Your task to perform on an android device: change the clock style Image 0: 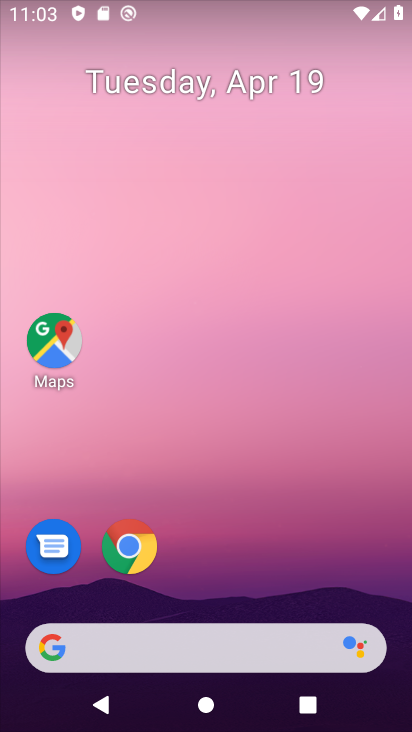
Step 0: drag from (232, 603) to (295, 36)
Your task to perform on an android device: change the clock style Image 1: 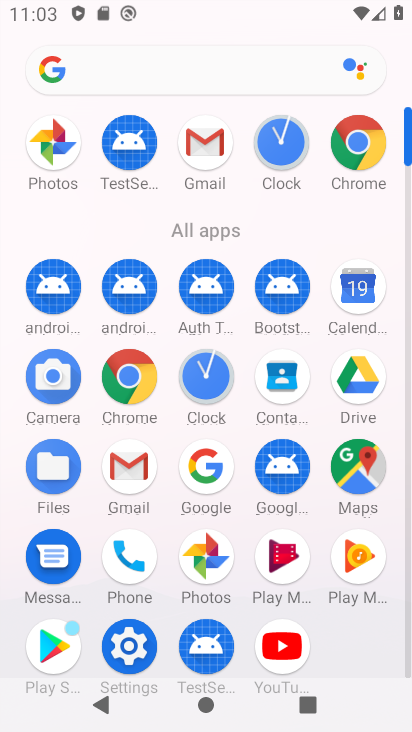
Step 1: click (201, 381)
Your task to perform on an android device: change the clock style Image 2: 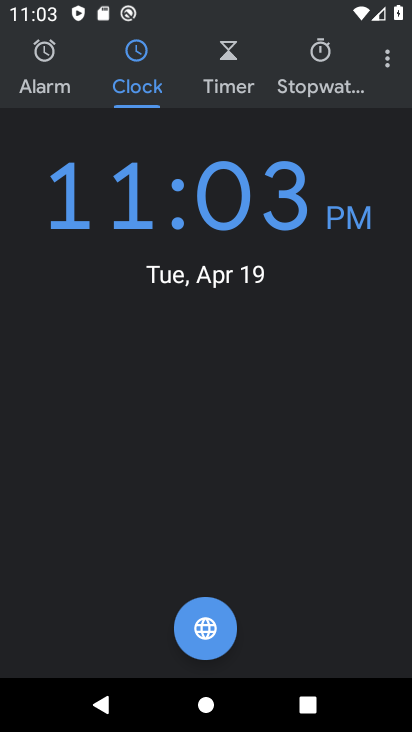
Step 2: click (380, 71)
Your task to perform on an android device: change the clock style Image 3: 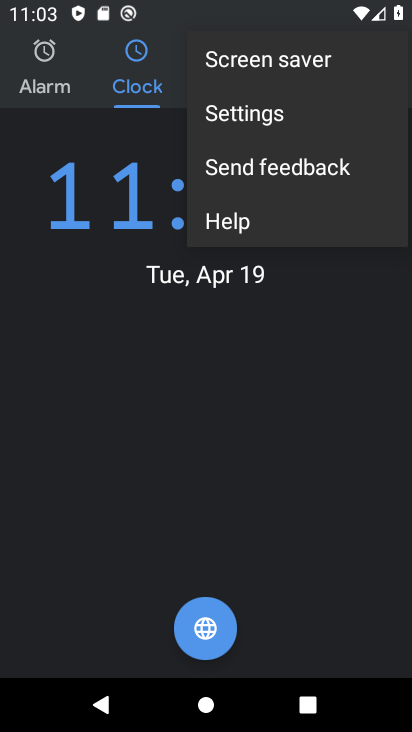
Step 3: click (222, 117)
Your task to perform on an android device: change the clock style Image 4: 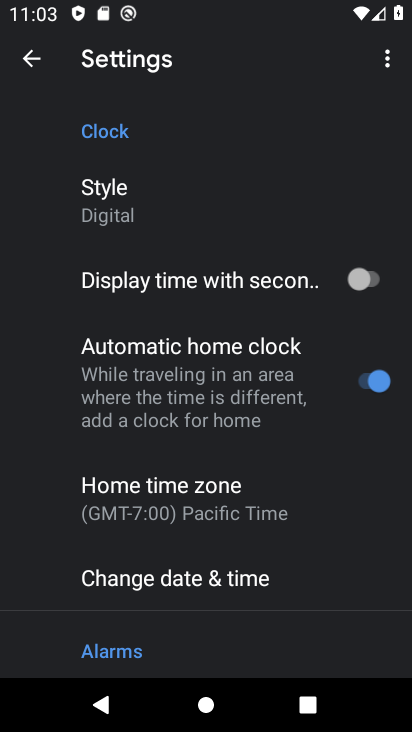
Step 4: click (124, 201)
Your task to perform on an android device: change the clock style Image 5: 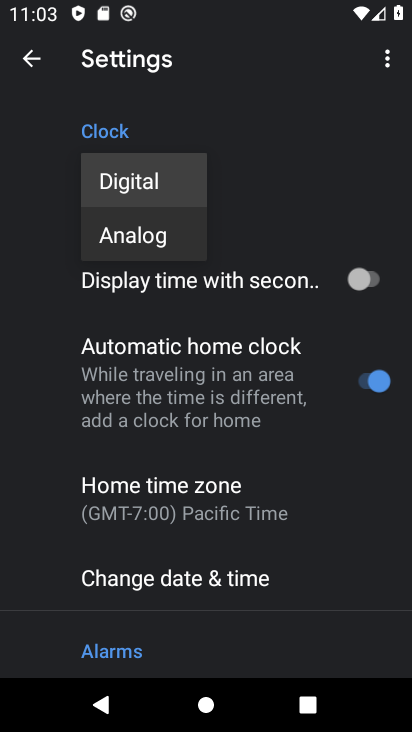
Step 5: click (141, 222)
Your task to perform on an android device: change the clock style Image 6: 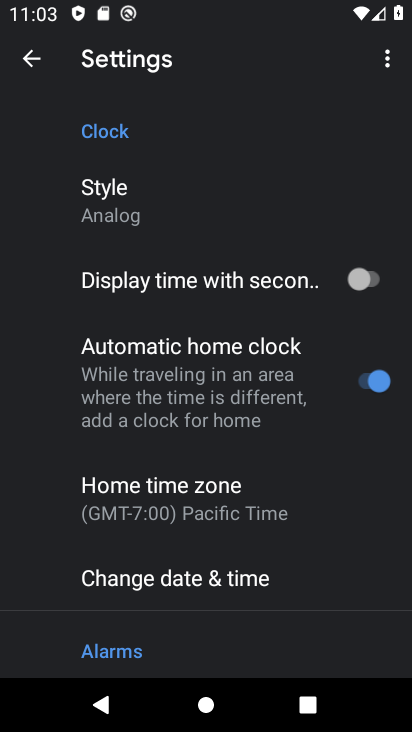
Step 6: task complete